Your task to perform on an android device: Open Yahoo.com Image 0: 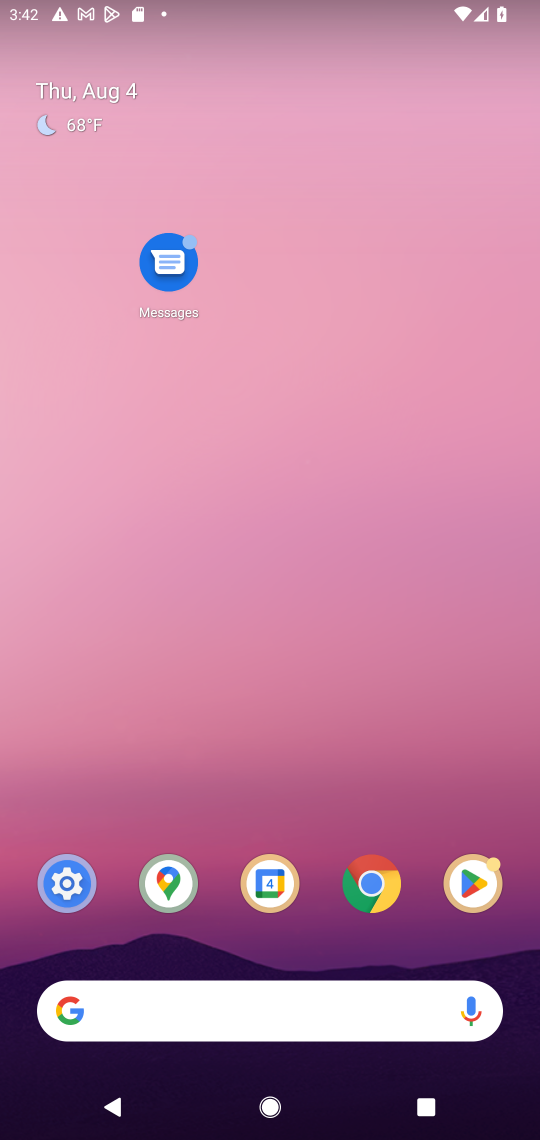
Step 0: drag from (303, 940) to (281, 30)
Your task to perform on an android device: Open Yahoo.com Image 1: 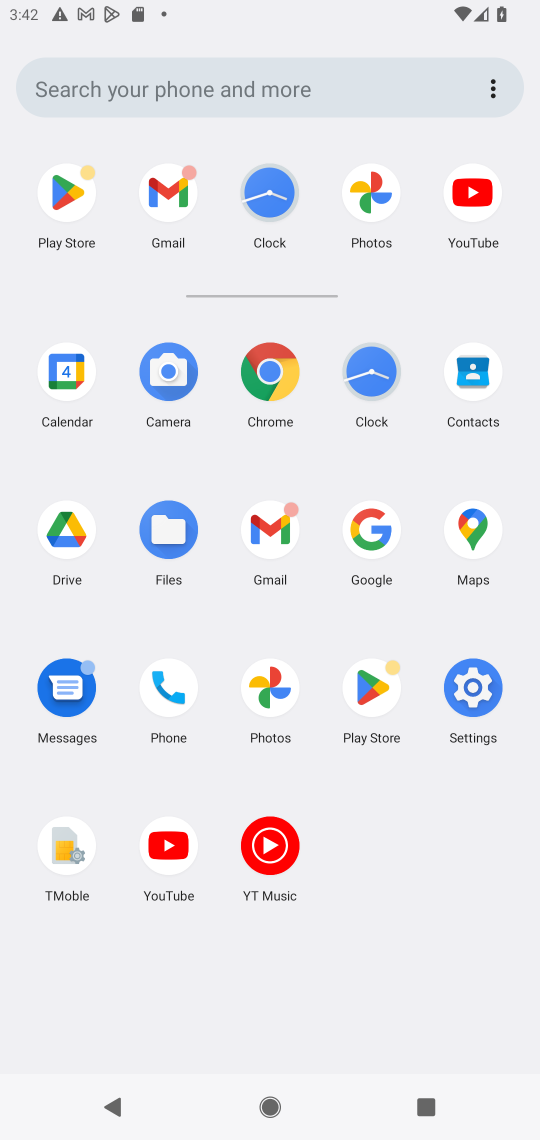
Step 1: click (260, 374)
Your task to perform on an android device: Open Yahoo.com Image 2: 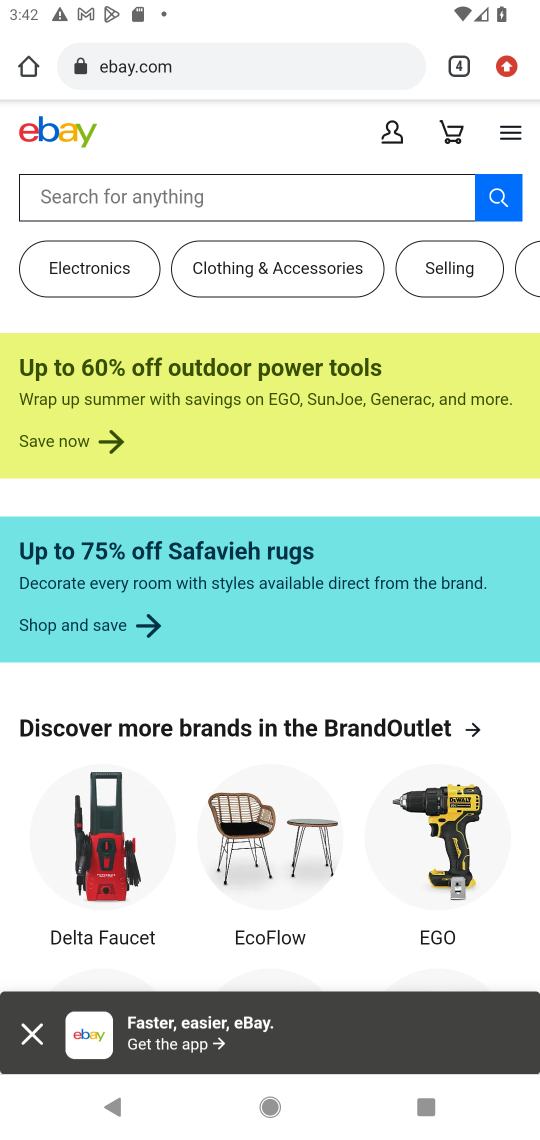
Step 2: click (505, 67)
Your task to perform on an android device: Open Yahoo.com Image 3: 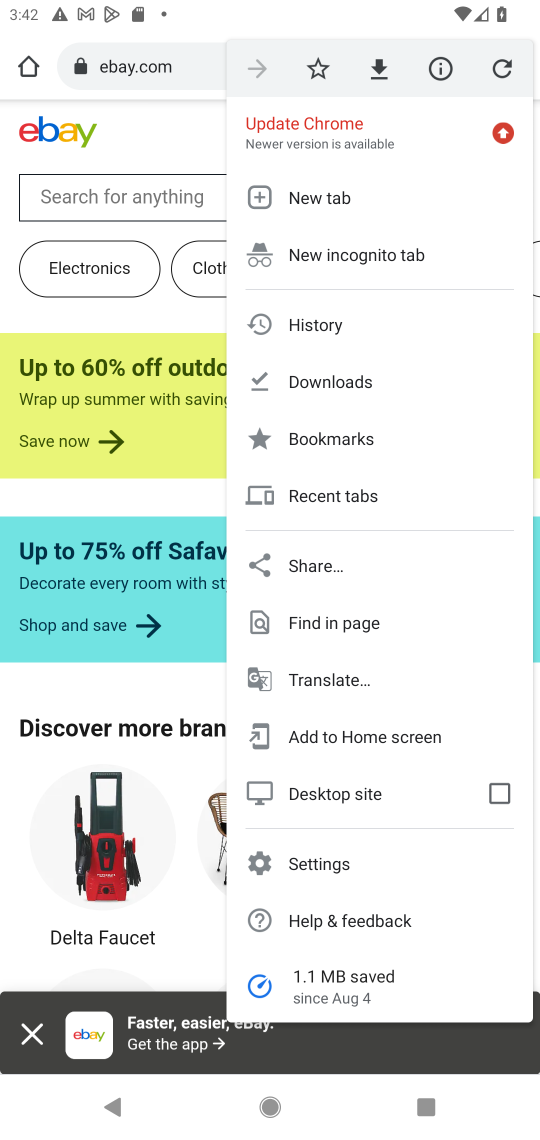
Step 3: click (315, 190)
Your task to perform on an android device: Open Yahoo.com Image 4: 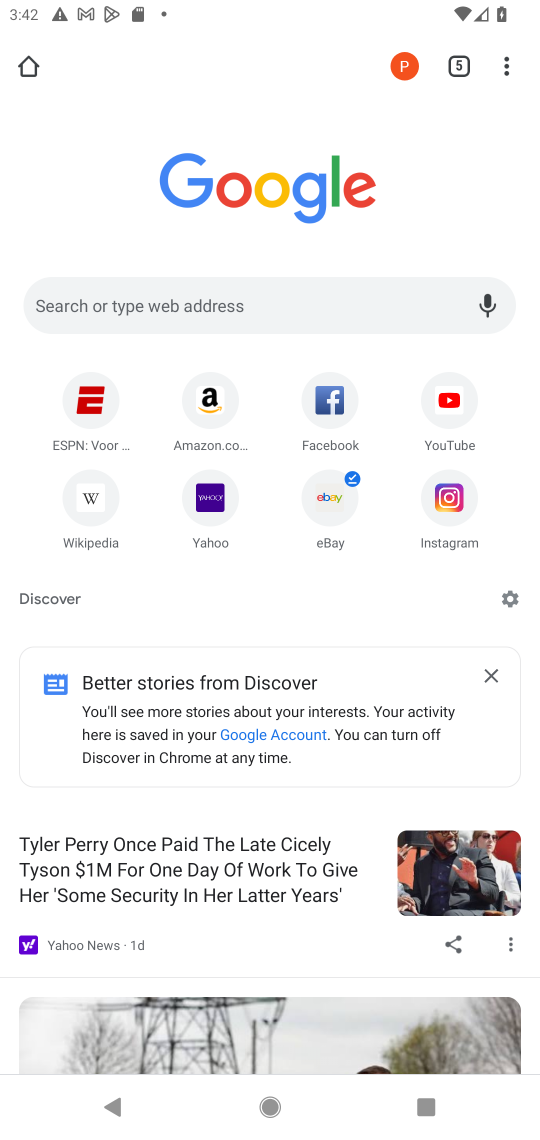
Step 4: click (201, 503)
Your task to perform on an android device: Open Yahoo.com Image 5: 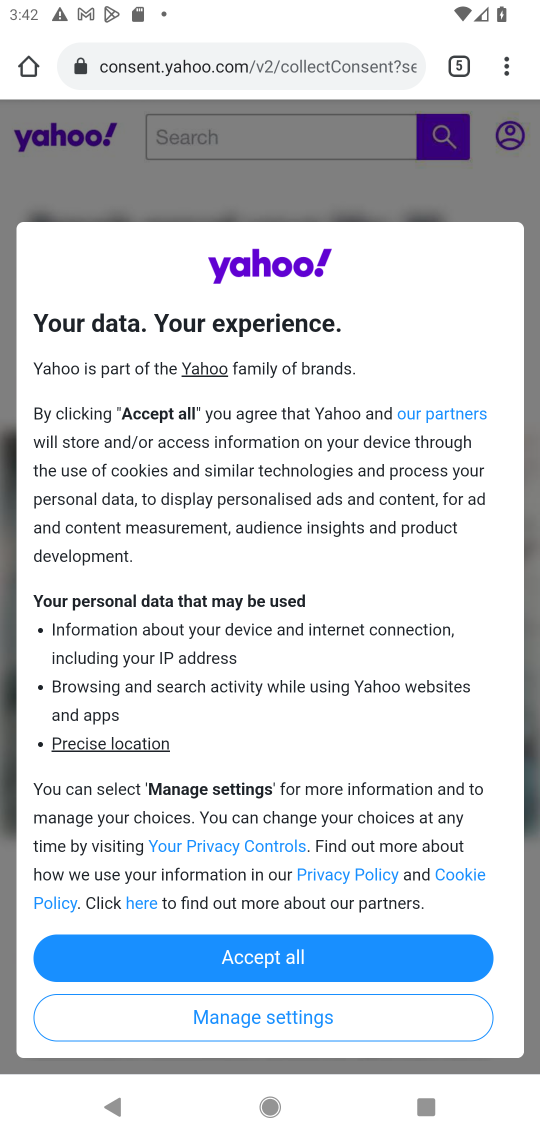
Step 5: task complete